Your task to perform on an android device: See recent photos Image 0: 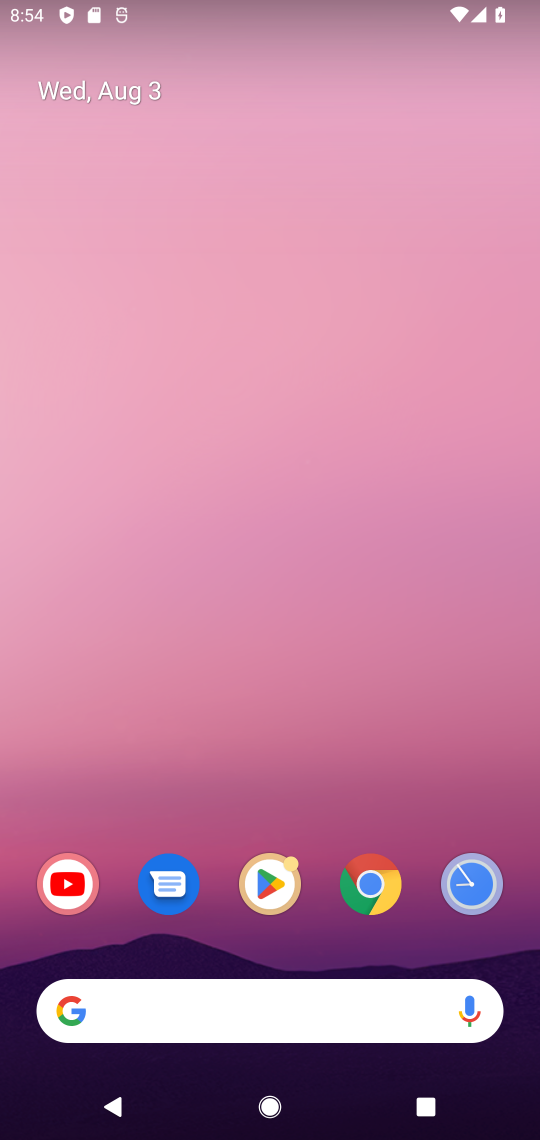
Step 0: drag from (205, 634) to (375, 127)
Your task to perform on an android device: See recent photos Image 1: 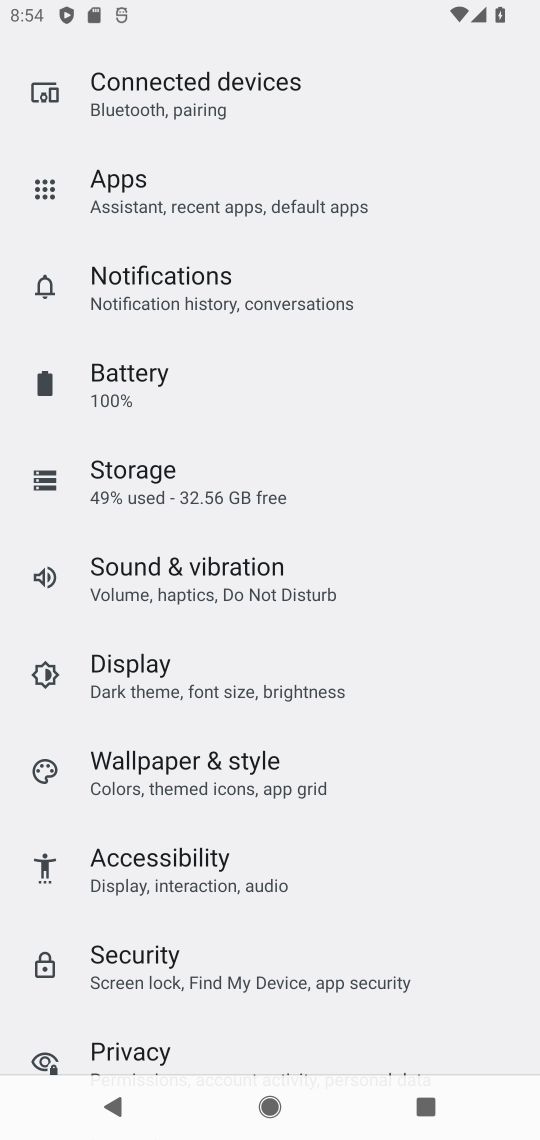
Step 1: drag from (204, 450) to (226, 1028)
Your task to perform on an android device: See recent photos Image 2: 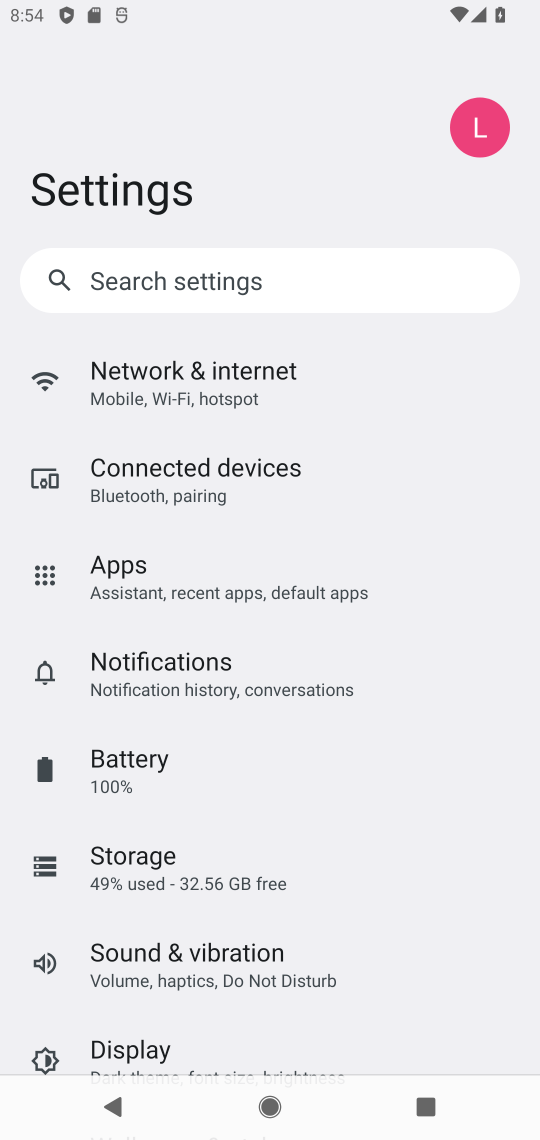
Step 2: press home button
Your task to perform on an android device: See recent photos Image 3: 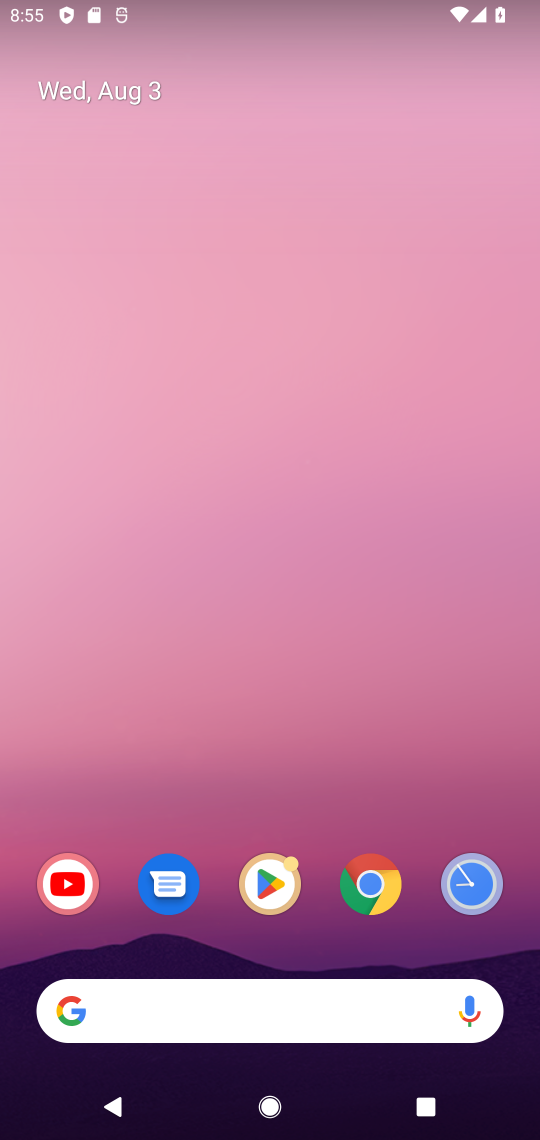
Step 3: drag from (226, 897) to (319, 368)
Your task to perform on an android device: See recent photos Image 4: 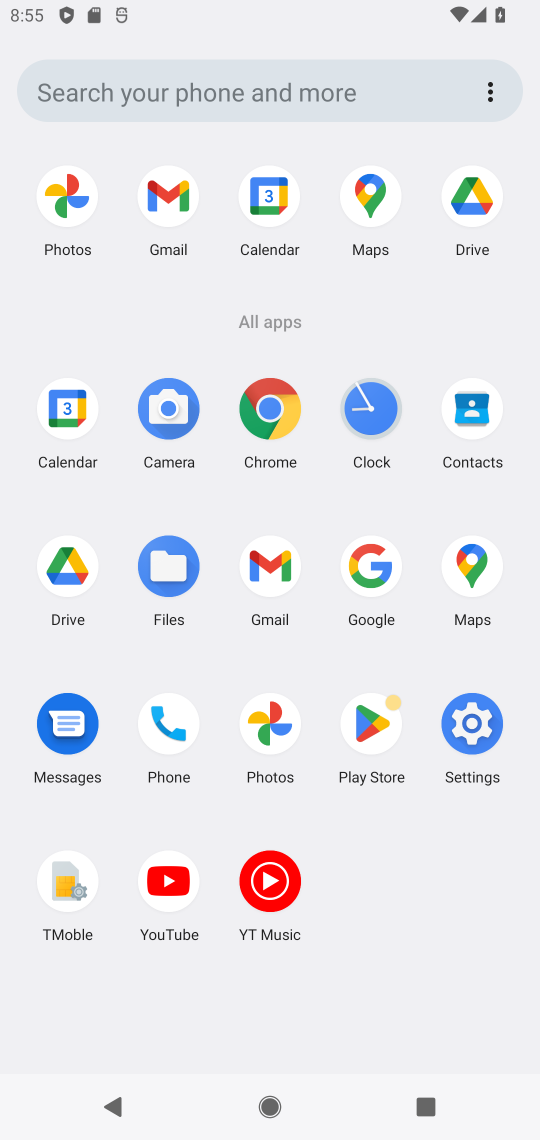
Step 4: click (269, 709)
Your task to perform on an android device: See recent photos Image 5: 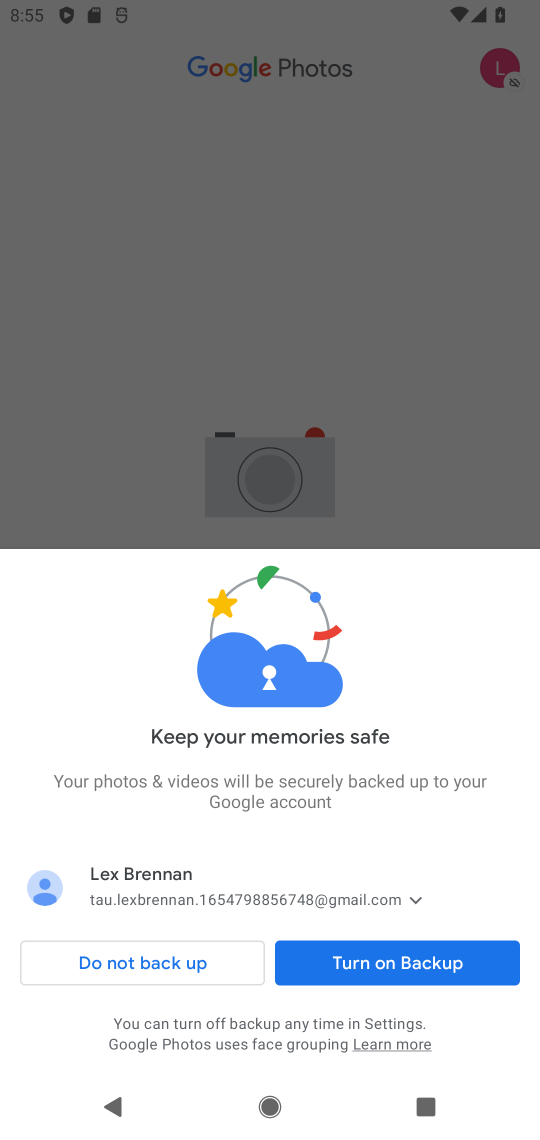
Step 5: task complete